Your task to perform on an android device: Toggle the flashlight Image 0: 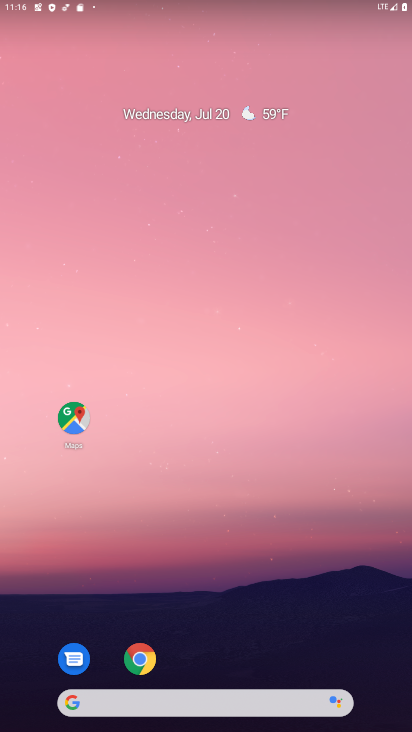
Step 0: drag from (230, 713) to (229, 185)
Your task to perform on an android device: Toggle the flashlight Image 1: 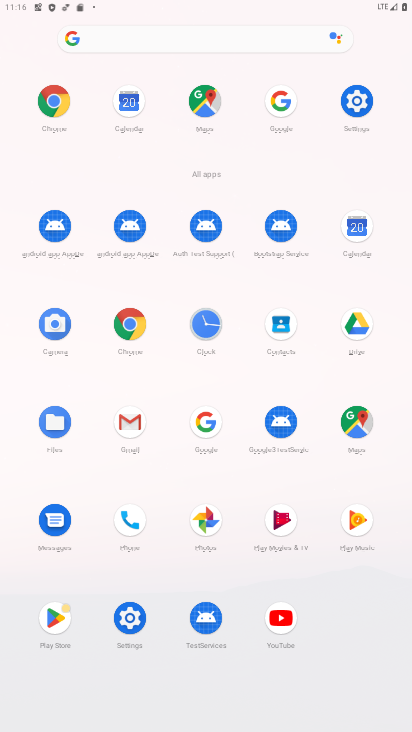
Step 1: click (357, 99)
Your task to perform on an android device: Toggle the flashlight Image 2: 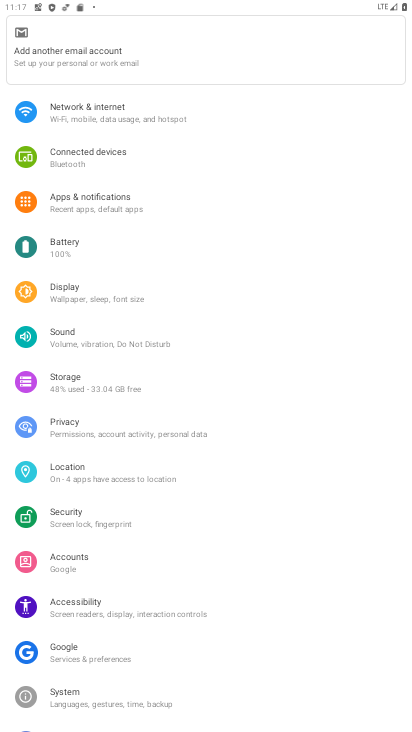
Step 2: task complete